Your task to perform on an android device: delete browsing data in the chrome app Image 0: 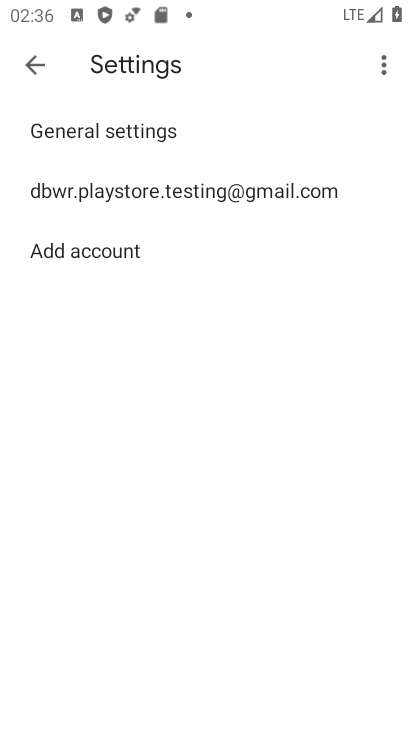
Step 0: press home button
Your task to perform on an android device: delete browsing data in the chrome app Image 1: 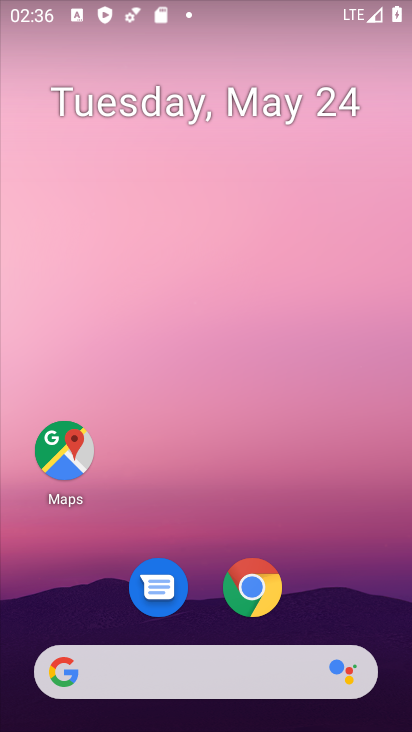
Step 1: click (248, 584)
Your task to perform on an android device: delete browsing data in the chrome app Image 2: 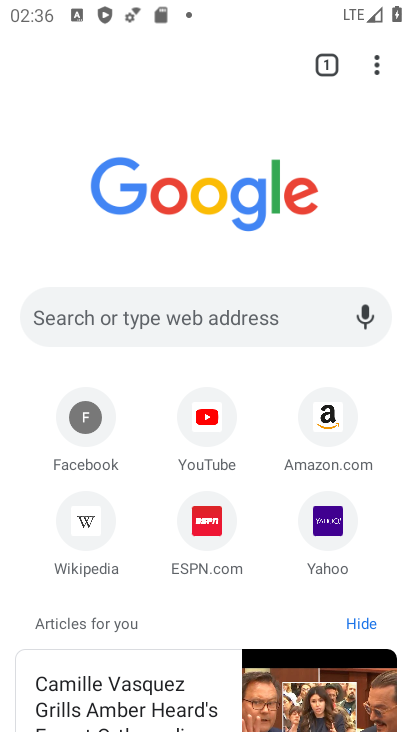
Step 2: click (371, 68)
Your task to perform on an android device: delete browsing data in the chrome app Image 3: 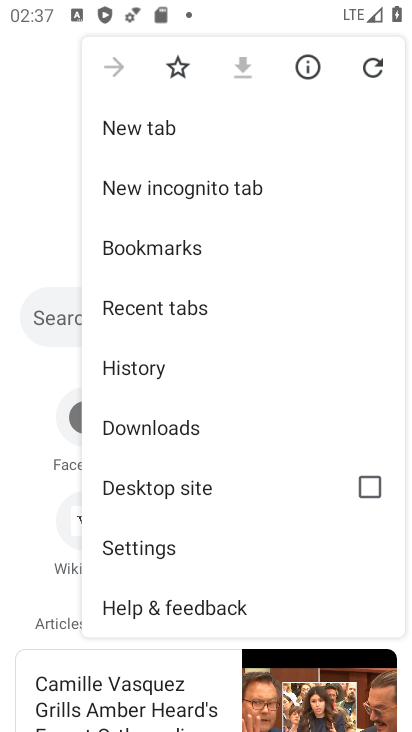
Step 3: click (184, 373)
Your task to perform on an android device: delete browsing data in the chrome app Image 4: 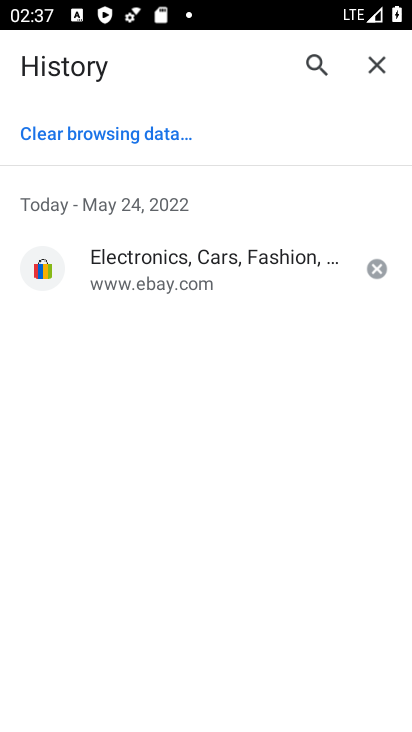
Step 4: click (124, 128)
Your task to perform on an android device: delete browsing data in the chrome app Image 5: 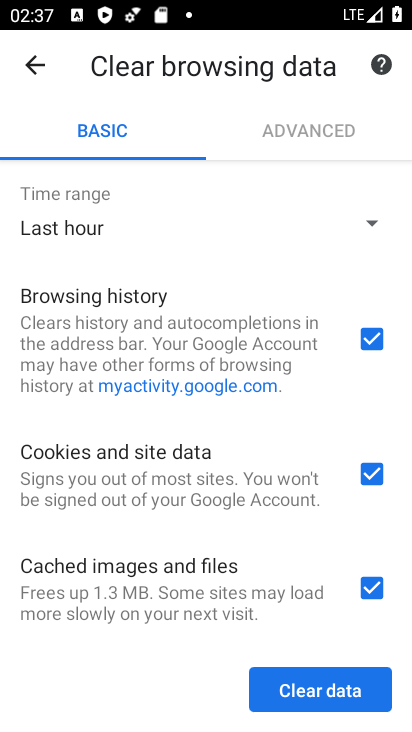
Step 5: click (298, 680)
Your task to perform on an android device: delete browsing data in the chrome app Image 6: 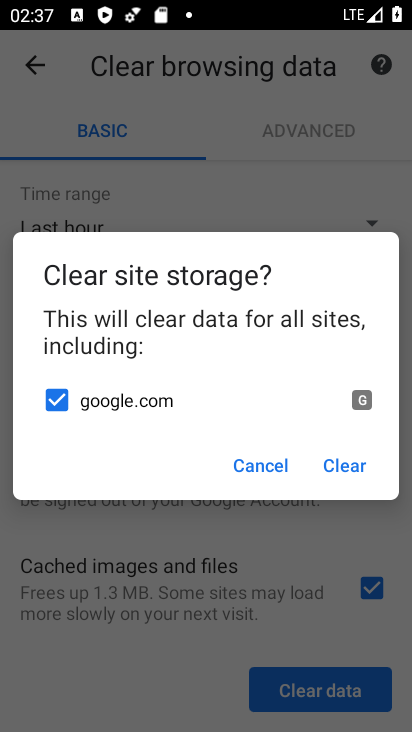
Step 6: click (341, 480)
Your task to perform on an android device: delete browsing data in the chrome app Image 7: 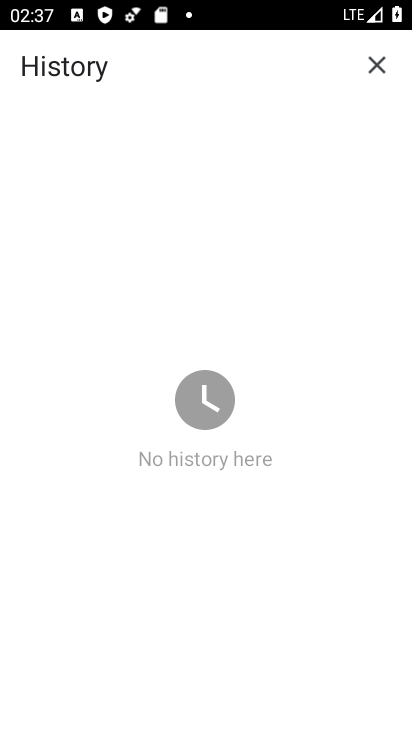
Step 7: task complete